Your task to perform on an android device: show emergency info Image 0: 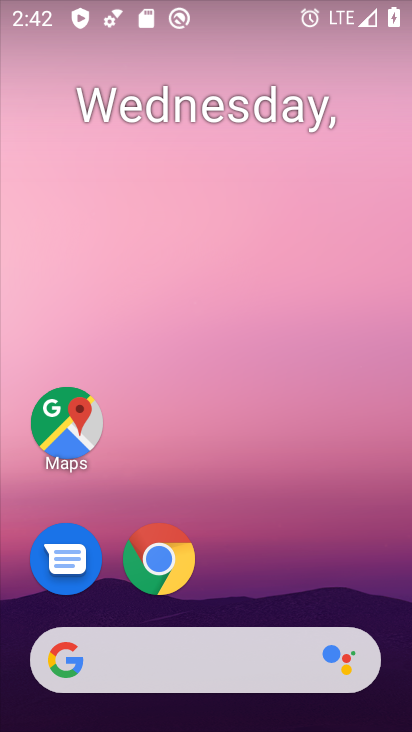
Step 0: drag from (248, 572) to (335, 20)
Your task to perform on an android device: show emergency info Image 1: 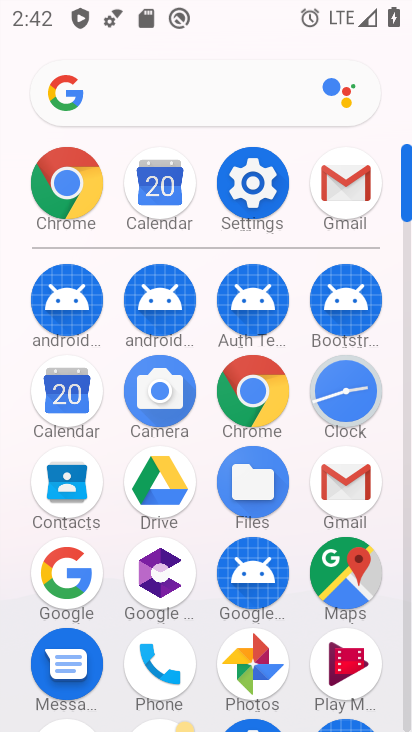
Step 1: click (257, 183)
Your task to perform on an android device: show emergency info Image 2: 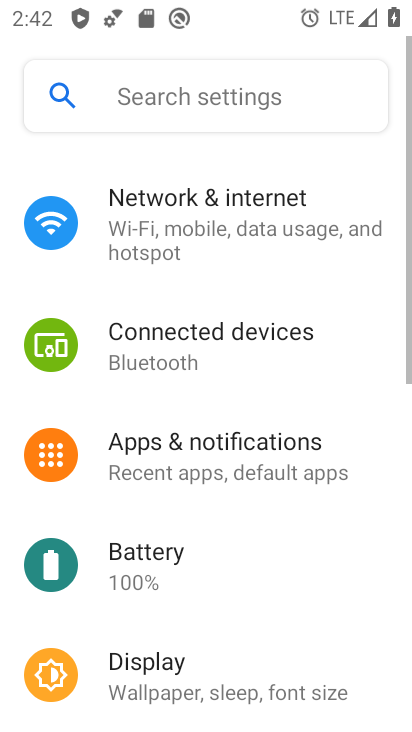
Step 2: drag from (166, 619) to (243, 4)
Your task to perform on an android device: show emergency info Image 3: 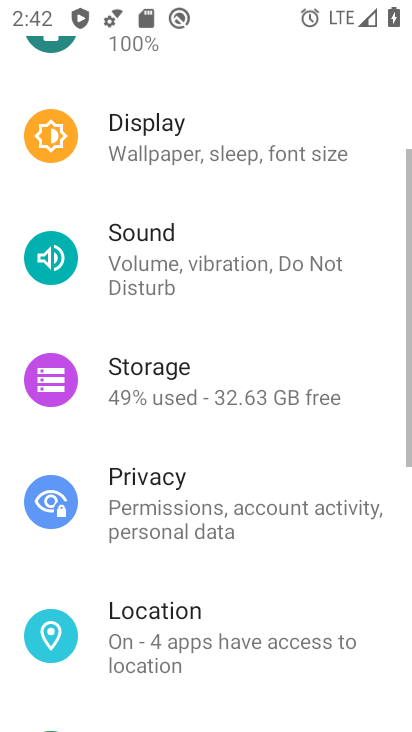
Step 3: drag from (174, 651) to (272, 9)
Your task to perform on an android device: show emergency info Image 4: 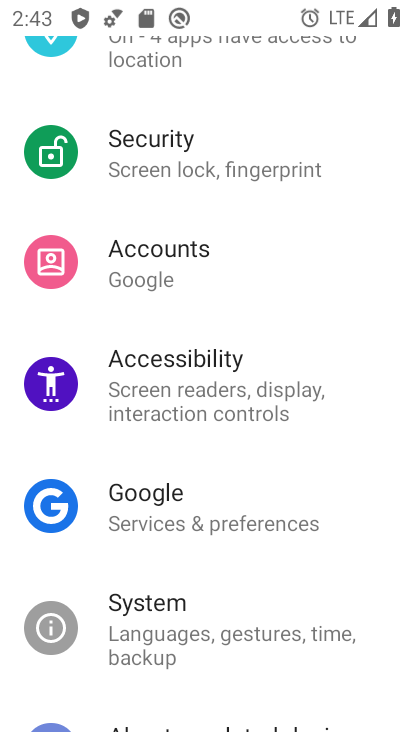
Step 4: drag from (140, 697) to (261, 95)
Your task to perform on an android device: show emergency info Image 5: 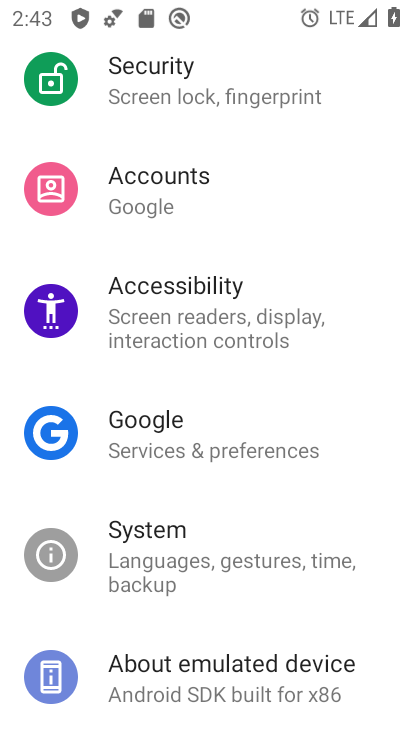
Step 5: click (162, 670)
Your task to perform on an android device: show emergency info Image 6: 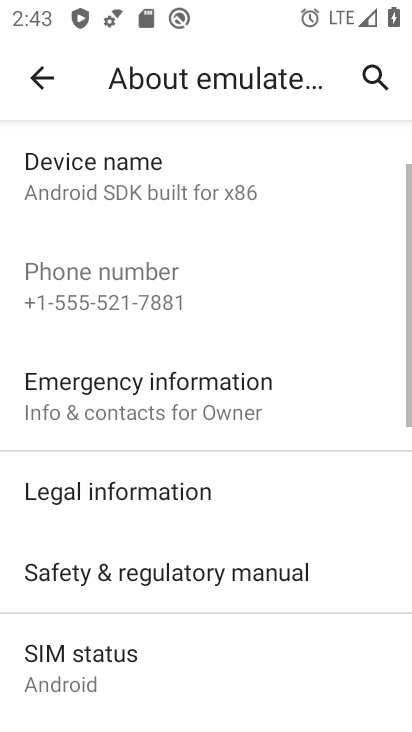
Step 6: click (141, 392)
Your task to perform on an android device: show emergency info Image 7: 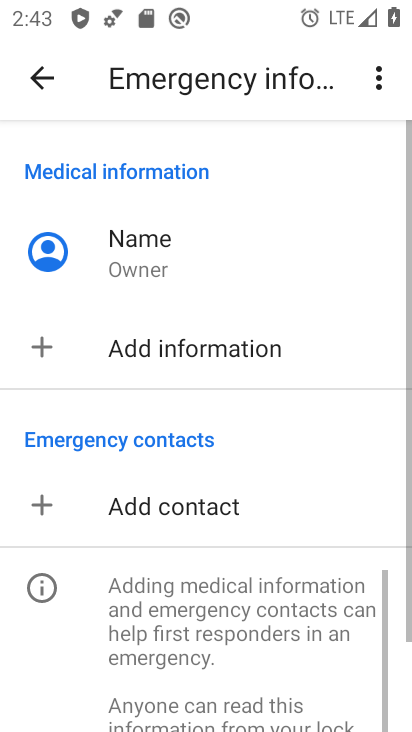
Step 7: task complete